Your task to perform on an android device: Go to Android settings Image 0: 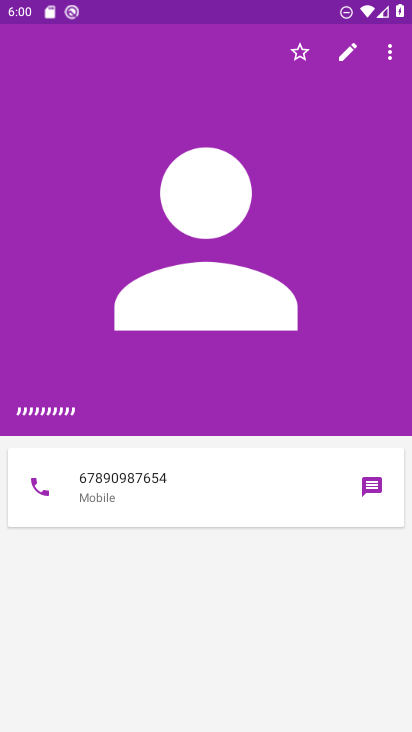
Step 0: press home button
Your task to perform on an android device: Go to Android settings Image 1: 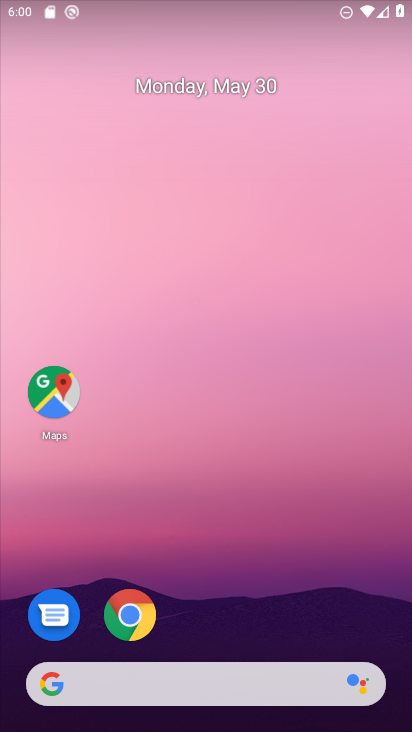
Step 1: drag from (186, 615) to (234, 179)
Your task to perform on an android device: Go to Android settings Image 2: 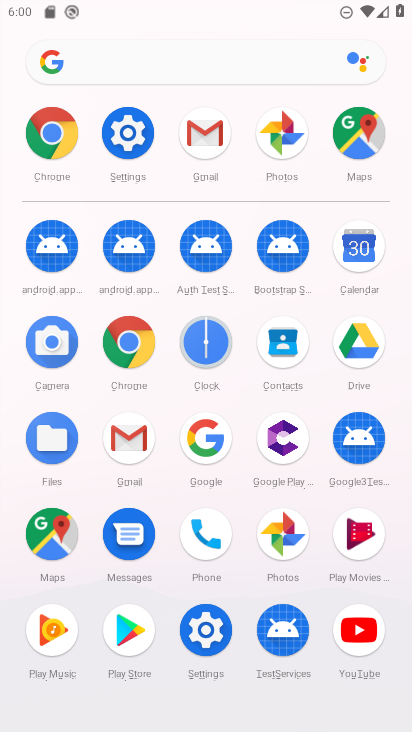
Step 2: click (141, 154)
Your task to perform on an android device: Go to Android settings Image 3: 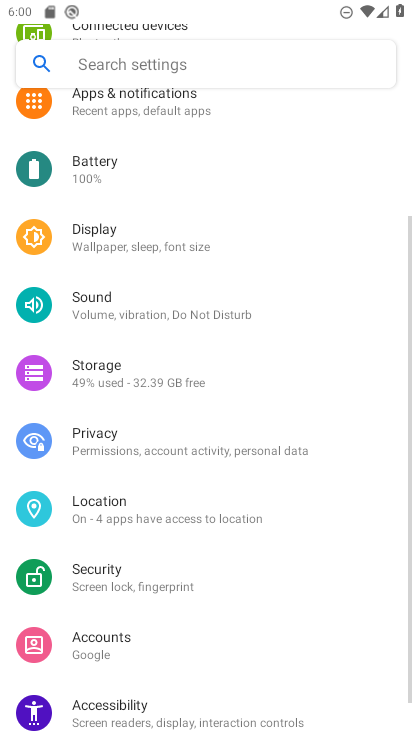
Step 3: task complete